Your task to perform on an android device: allow cookies in the chrome app Image 0: 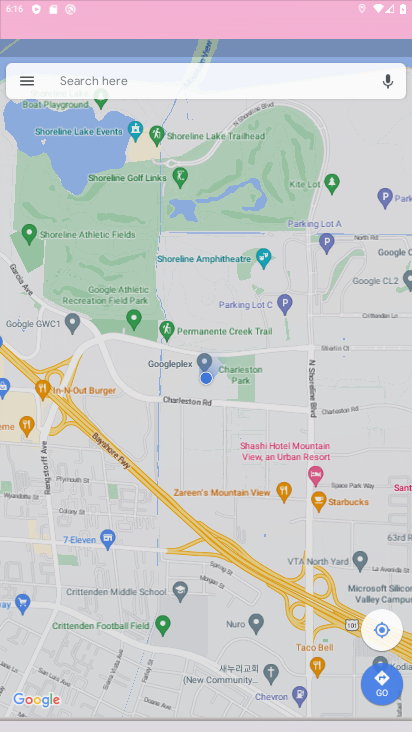
Step 0: press home button
Your task to perform on an android device: allow cookies in the chrome app Image 1: 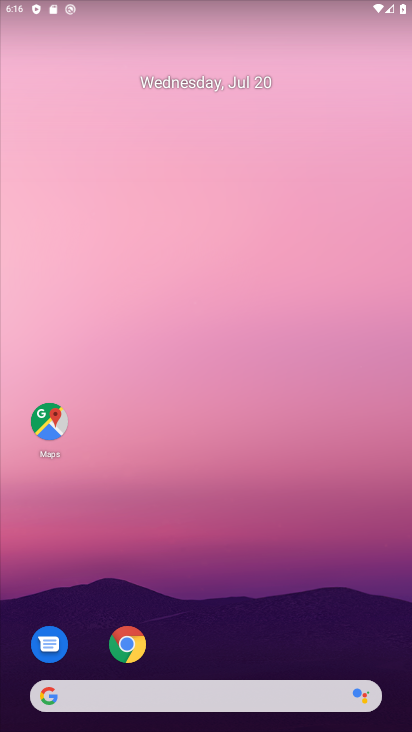
Step 1: drag from (269, 371) to (324, 162)
Your task to perform on an android device: allow cookies in the chrome app Image 2: 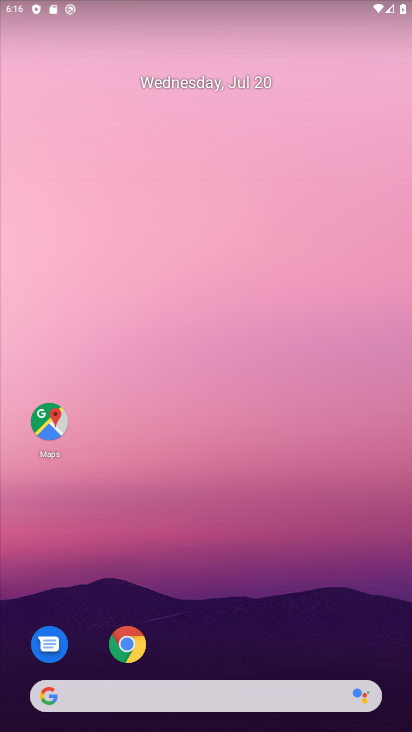
Step 2: drag from (268, 526) to (288, 88)
Your task to perform on an android device: allow cookies in the chrome app Image 3: 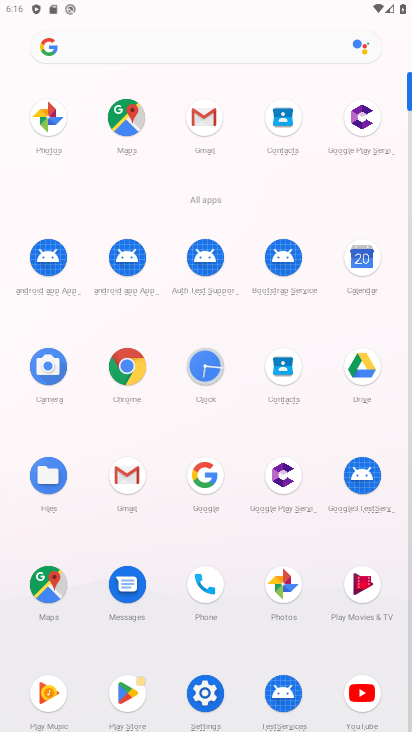
Step 3: click (129, 369)
Your task to perform on an android device: allow cookies in the chrome app Image 4: 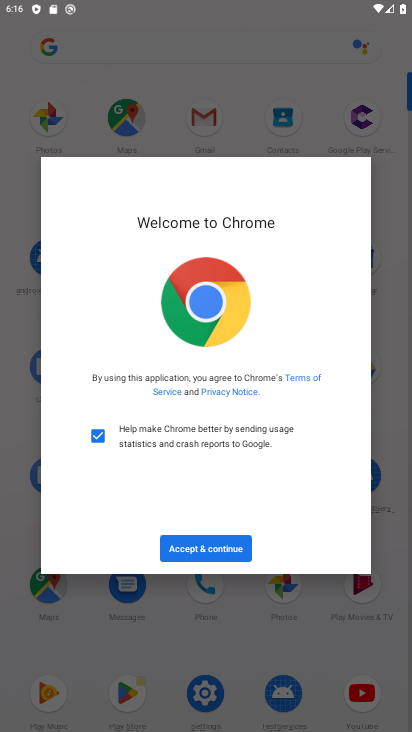
Step 4: click (213, 543)
Your task to perform on an android device: allow cookies in the chrome app Image 5: 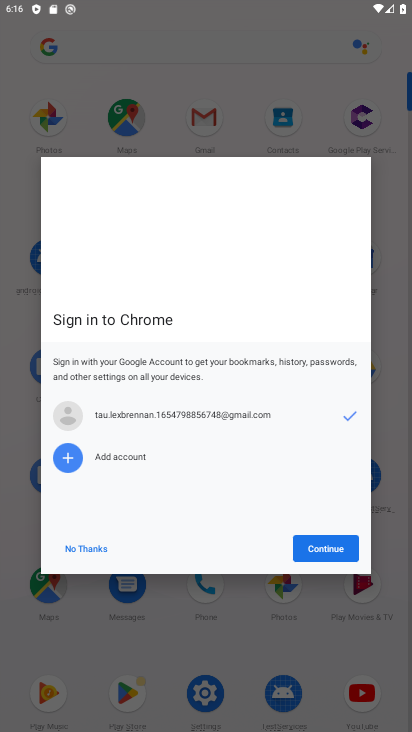
Step 5: click (347, 552)
Your task to perform on an android device: allow cookies in the chrome app Image 6: 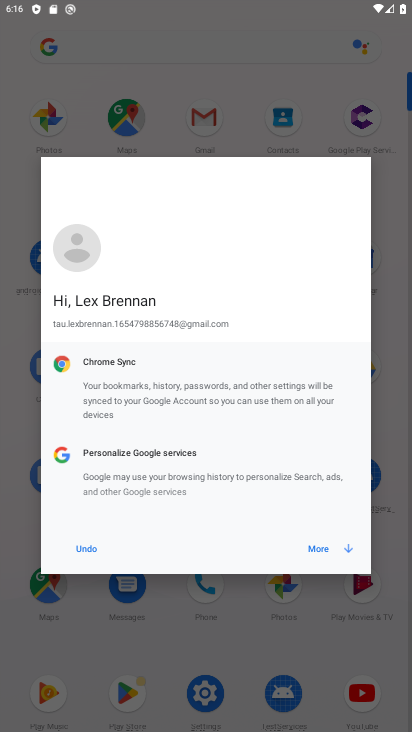
Step 6: click (315, 546)
Your task to perform on an android device: allow cookies in the chrome app Image 7: 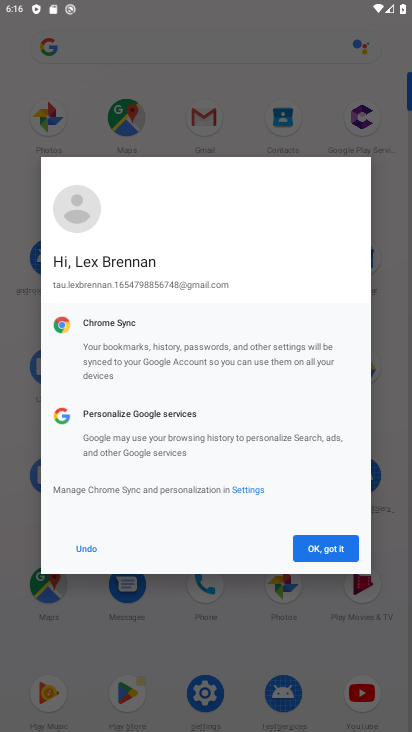
Step 7: click (314, 543)
Your task to perform on an android device: allow cookies in the chrome app Image 8: 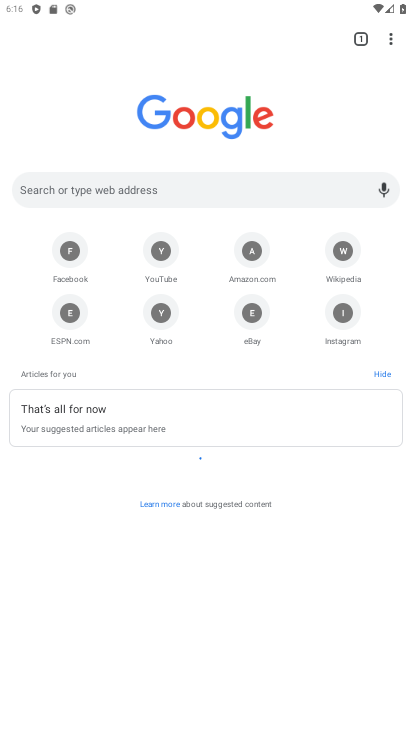
Step 8: click (391, 43)
Your task to perform on an android device: allow cookies in the chrome app Image 9: 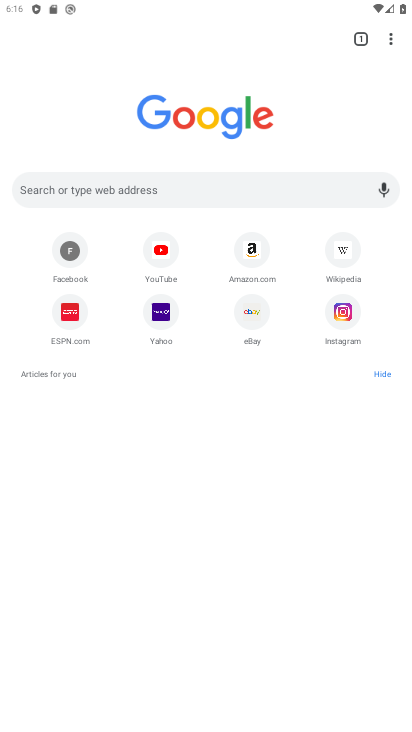
Step 9: drag from (391, 43) to (217, 322)
Your task to perform on an android device: allow cookies in the chrome app Image 10: 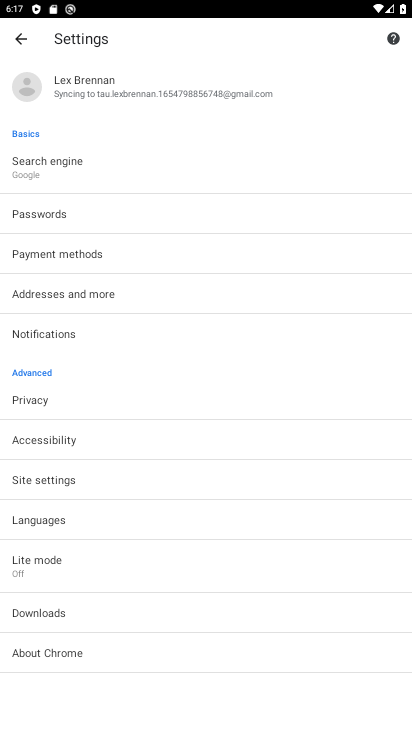
Step 10: click (35, 481)
Your task to perform on an android device: allow cookies in the chrome app Image 11: 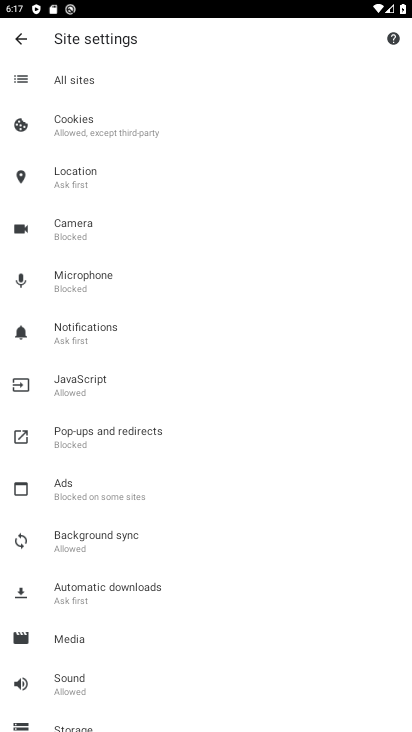
Step 11: click (81, 125)
Your task to perform on an android device: allow cookies in the chrome app Image 12: 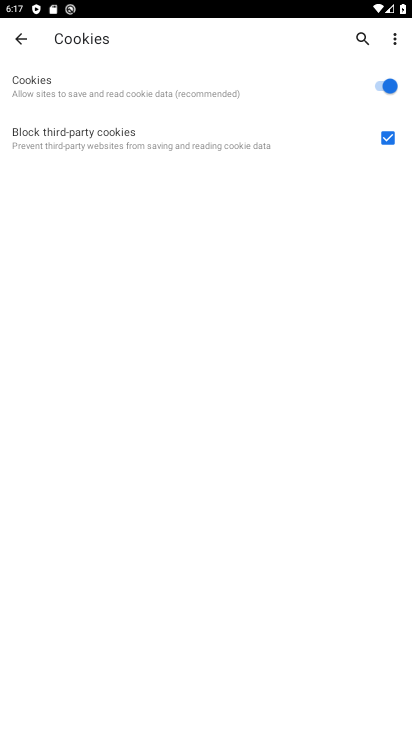
Step 12: task complete